Your task to perform on an android device: change notifications settings Image 0: 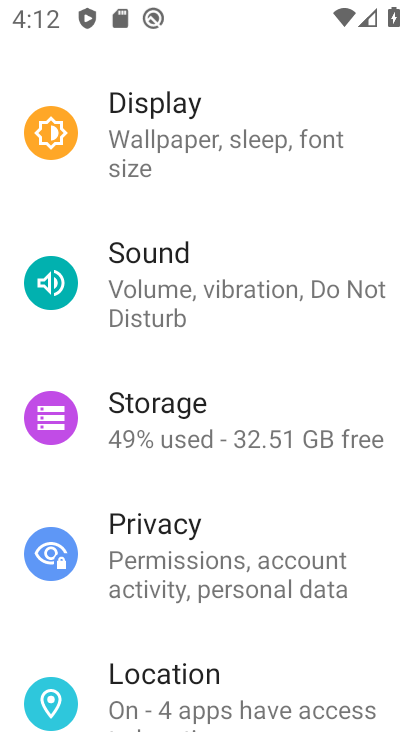
Step 0: drag from (227, 117) to (290, 705)
Your task to perform on an android device: change notifications settings Image 1: 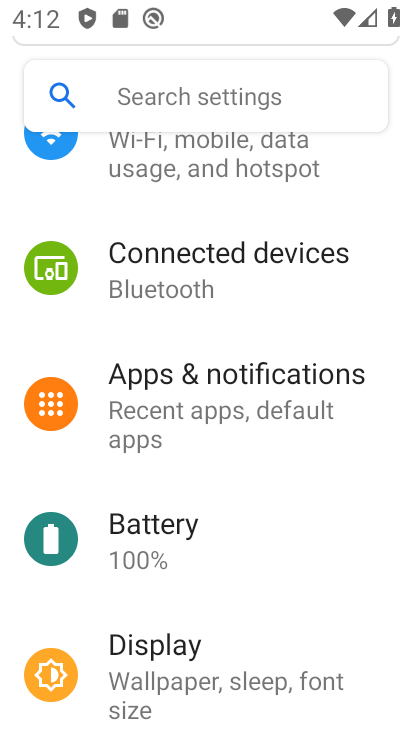
Step 1: click (268, 390)
Your task to perform on an android device: change notifications settings Image 2: 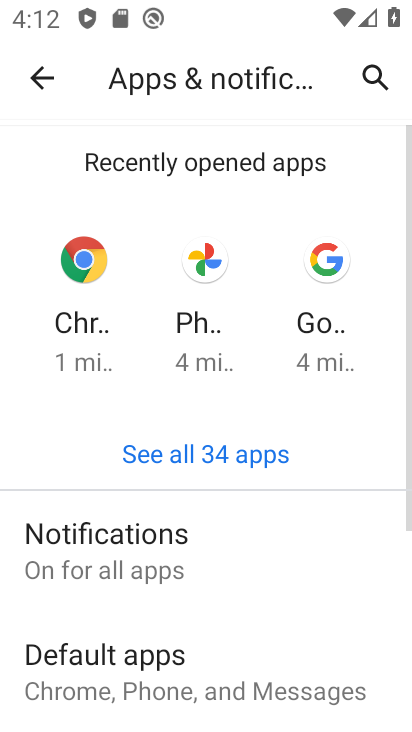
Step 2: click (235, 567)
Your task to perform on an android device: change notifications settings Image 3: 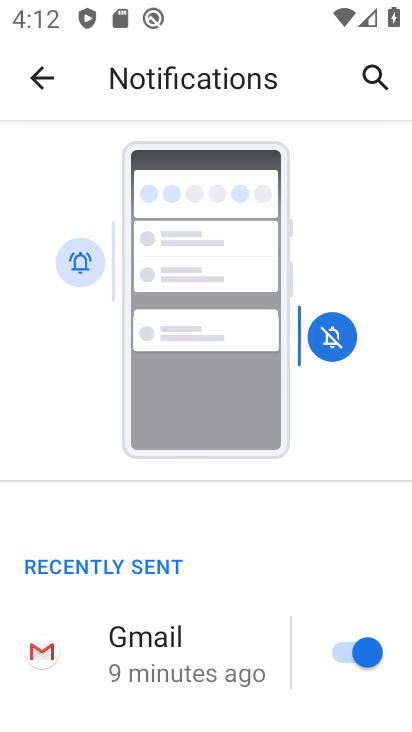
Step 3: drag from (269, 651) to (201, 229)
Your task to perform on an android device: change notifications settings Image 4: 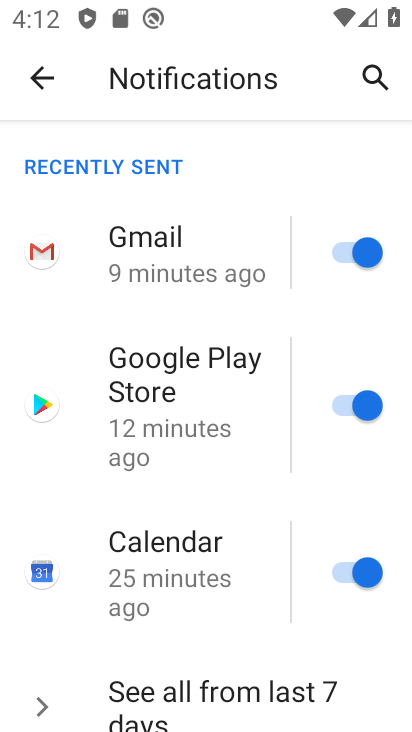
Step 4: drag from (299, 692) to (237, 267)
Your task to perform on an android device: change notifications settings Image 5: 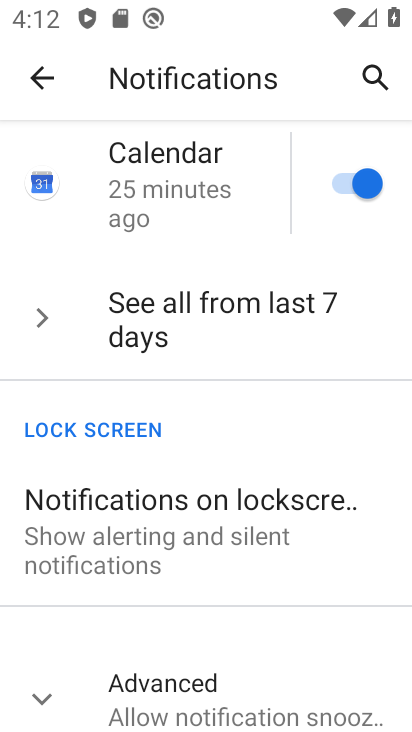
Step 5: drag from (270, 604) to (231, 284)
Your task to perform on an android device: change notifications settings Image 6: 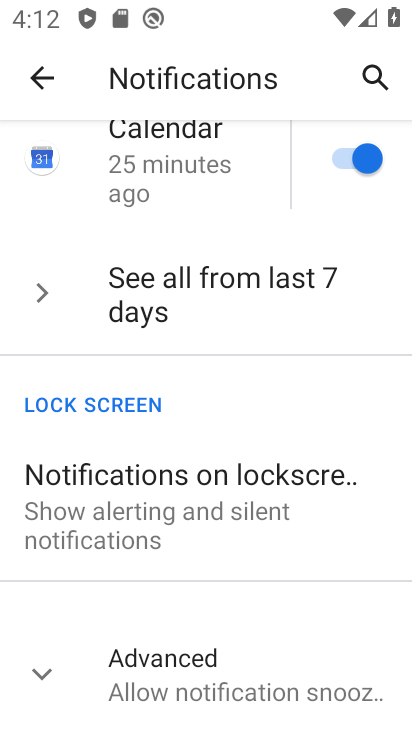
Step 6: click (228, 662)
Your task to perform on an android device: change notifications settings Image 7: 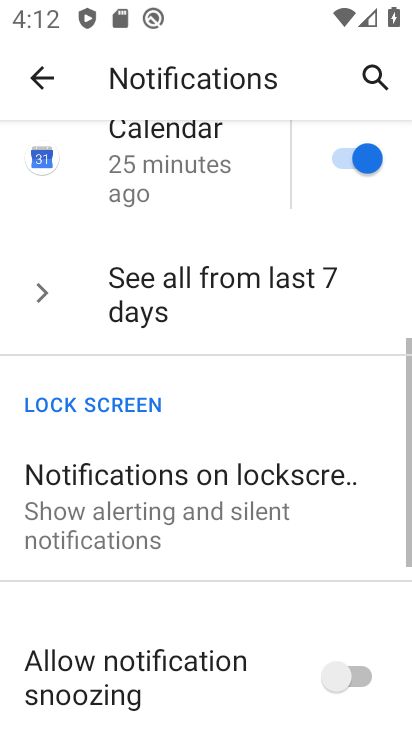
Step 7: drag from (236, 632) to (198, 268)
Your task to perform on an android device: change notifications settings Image 8: 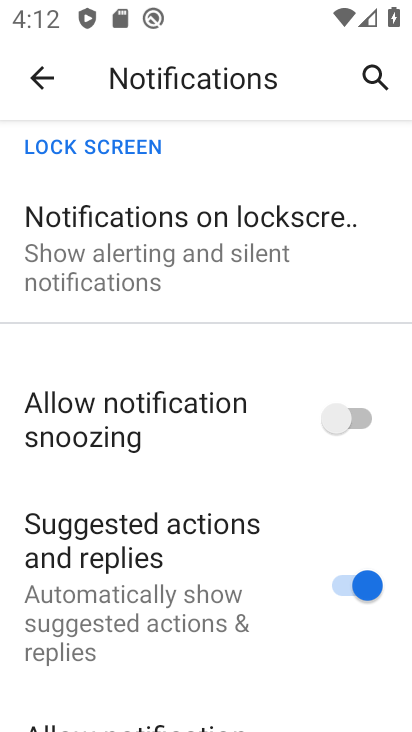
Step 8: click (356, 408)
Your task to perform on an android device: change notifications settings Image 9: 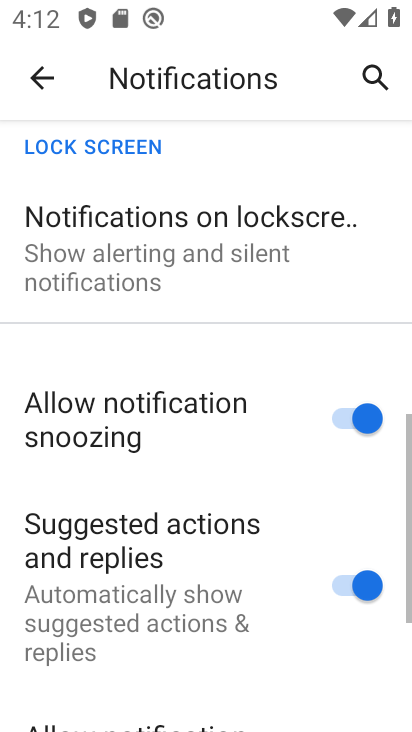
Step 9: click (338, 590)
Your task to perform on an android device: change notifications settings Image 10: 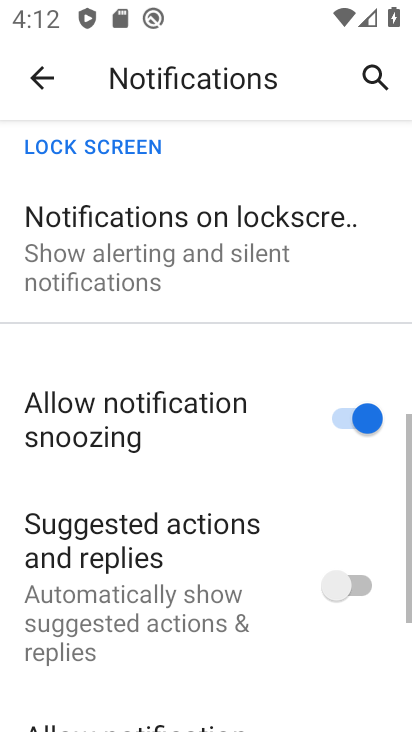
Step 10: drag from (318, 654) to (253, 315)
Your task to perform on an android device: change notifications settings Image 11: 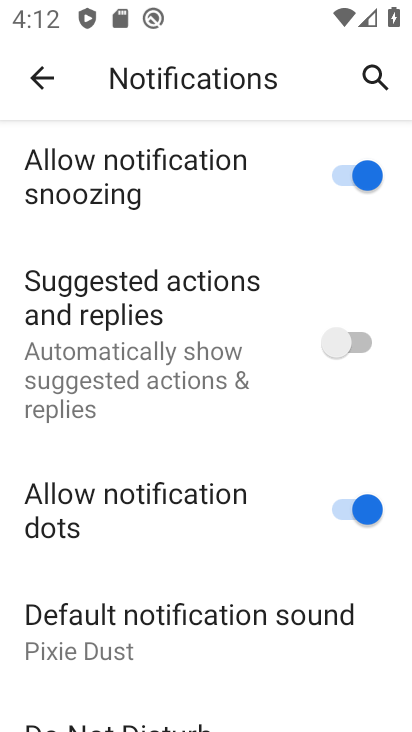
Step 11: click (354, 507)
Your task to perform on an android device: change notifications settings Image 12: 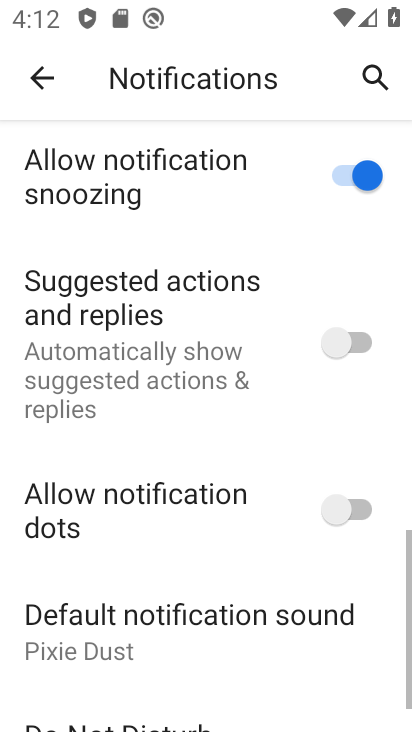
Step 12: task complete